Your task to perform on an android device: change the clock display to digital Image 0: 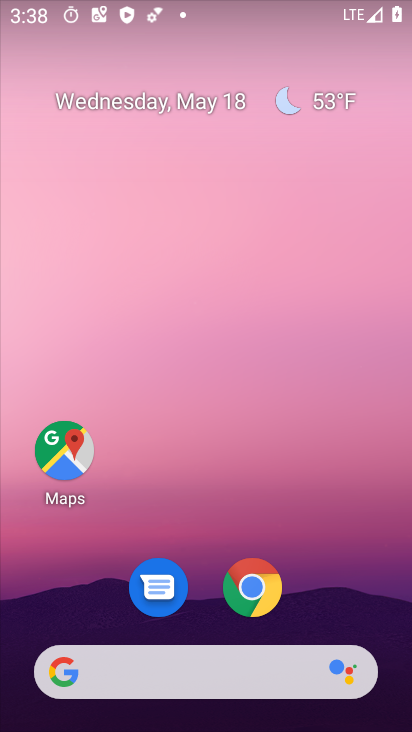
Step 0: drag from (214, 652) to (313, 33)
Your task to perform on an android device: change the clock display to digital Image 1: 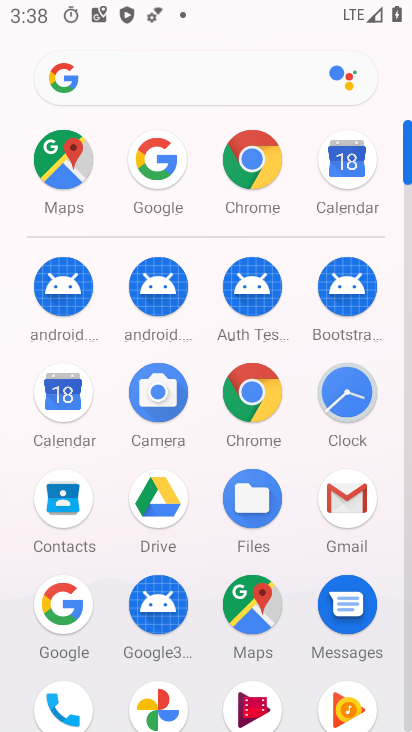
Step 1: click (351, 391)
Your task to perform on an android device: change the clock display to digital Image 2: 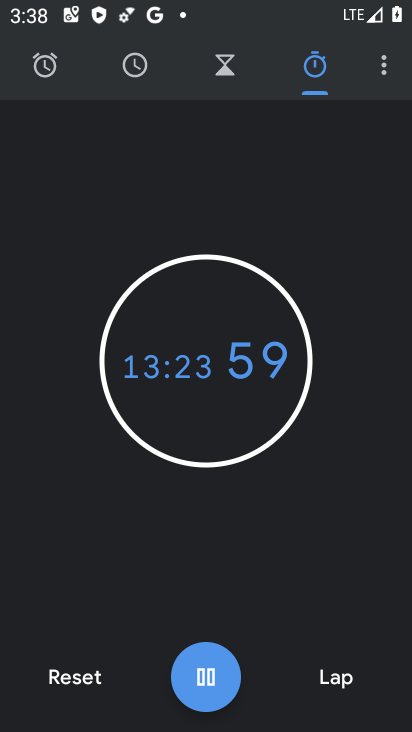
Step 2: click (385, 71)
Your task to perform on an android device: change the clock display to digital Image 3: 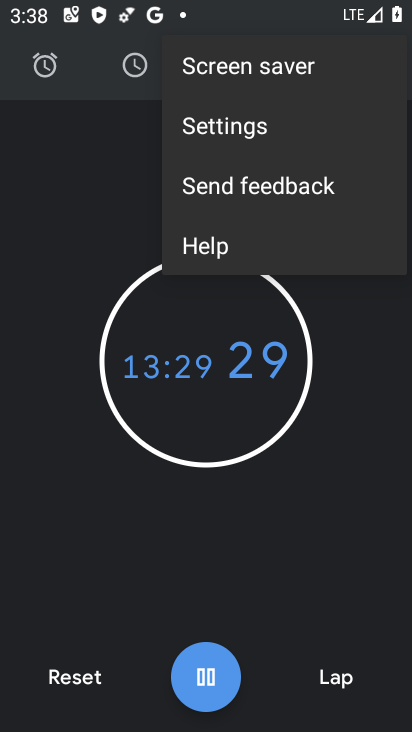
Step 3: click (278, 128)
Your task to perform on an android device: change the clock display to digital Image 4: 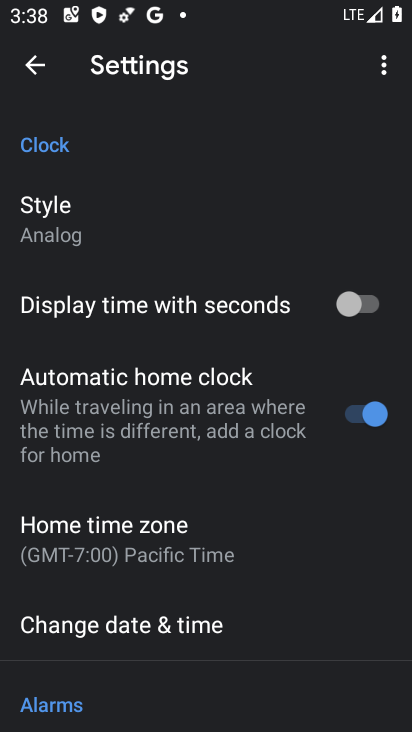
Step 4: click (114, 225)
Your task to perform on an android device: change the clock display to digital Image 5: 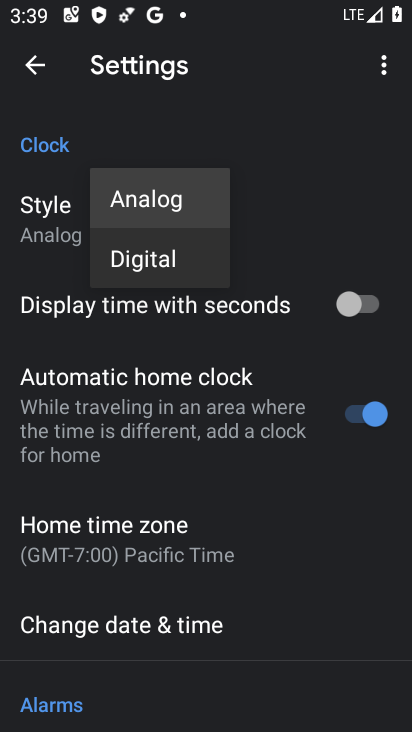
Step 5: click (152, 259)
Your task to perform on an android device: change the clock display to digital Image 6: 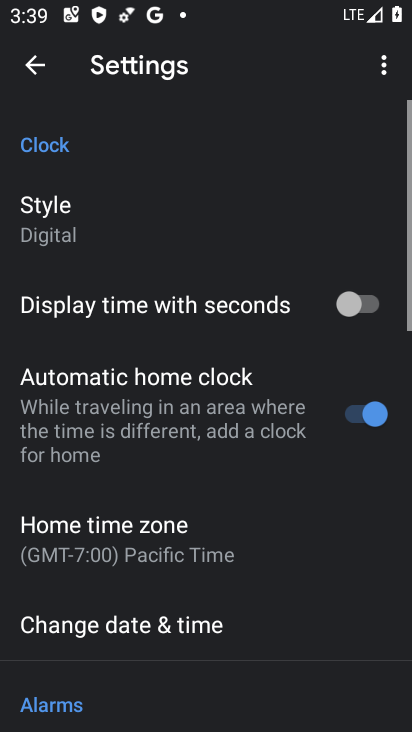
Step 6: task complete